Your task to perform on an android device: make emails show in primary in the gmail app Image 0: 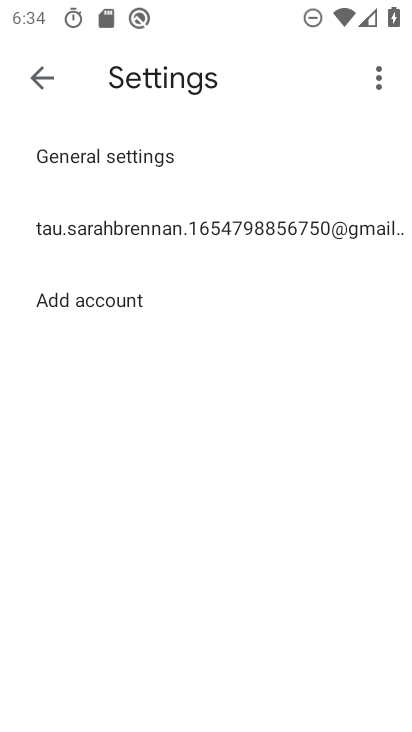
Step 0: press back button
Your task to perform on an android device: make emails show in primary in the gmail app Image 1: 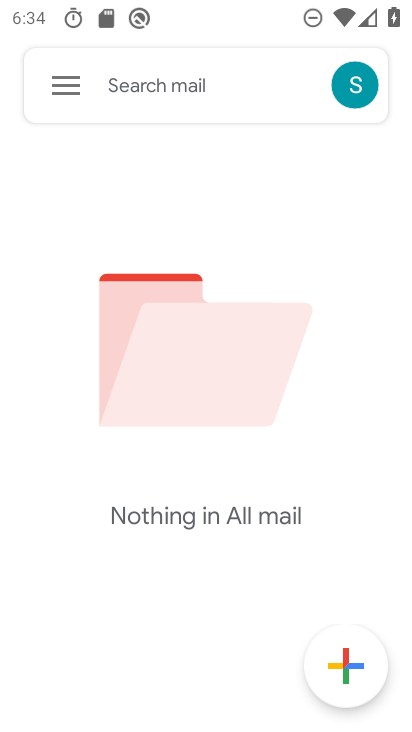
Step 1: press back button
Your task to perform on an android device: make emails show in primary in the gmail app Image 2: 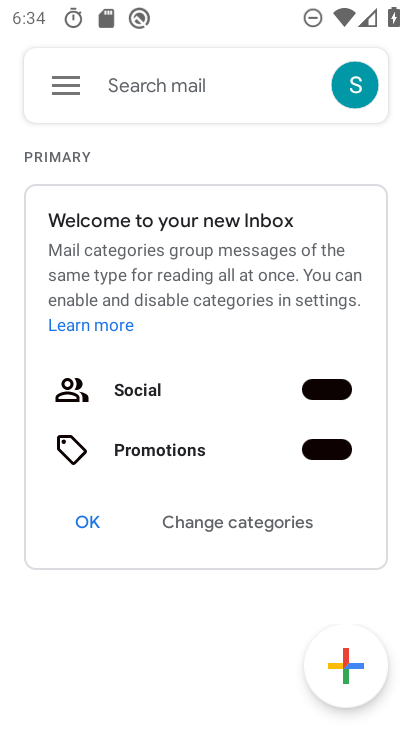
Step 2: press back button
Your task to perform on an android device: make emails show in primary in the gmail app Image 3: 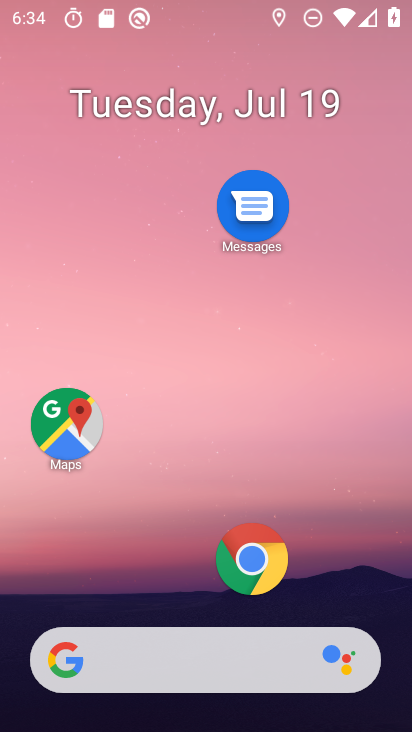
Step 3: click (203, 32)
Your task to perform on an android device: make emails show in primary in the gmail app Image 4: 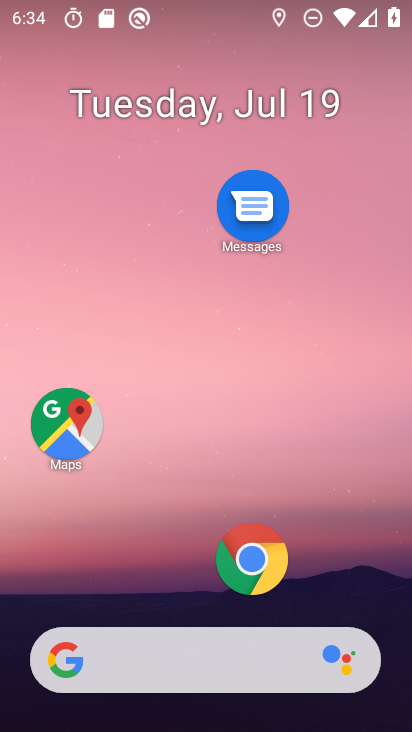
Step 4: drag from (144, 535) to (212, 2)
Your task to perform on an android device: make emails show in primary in the gmail app Image 5: 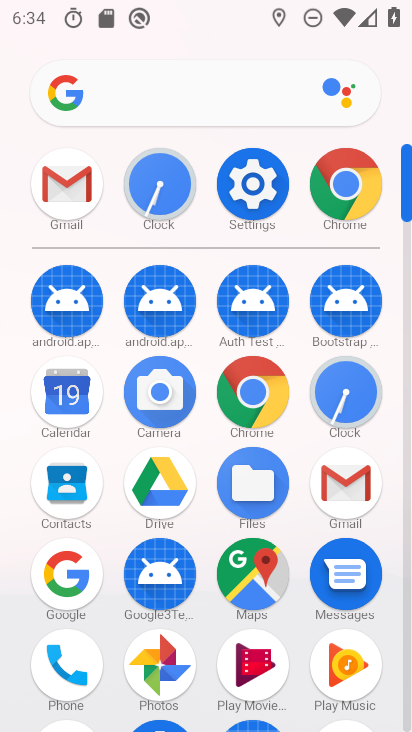
Step 5: click (63, 184)
Your task to perform on an android device: make emails show in primary in the gmail app Image 6: 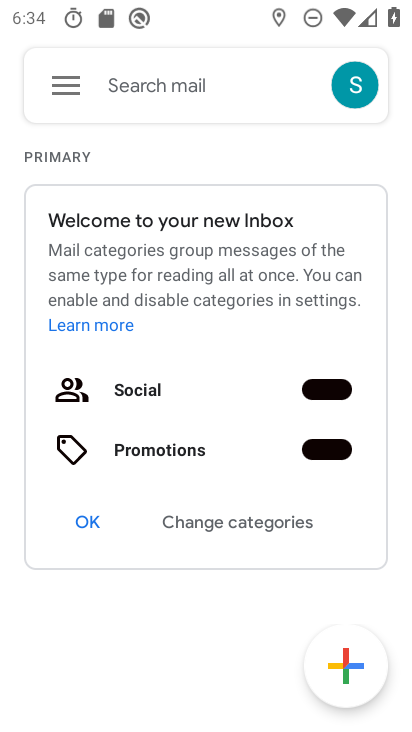
Step 6: click (59, 84)
Your task to perform on an android device: make emails show in primary in the gmail app Image 7: 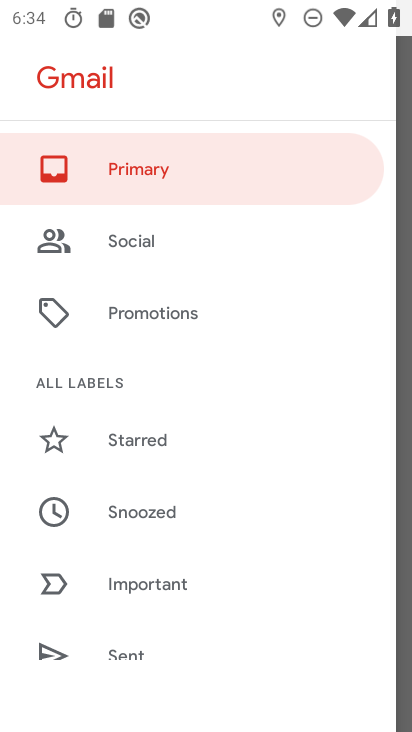
Step 7: click (162, 169)
Your task to perform on an android device: make emails show in primary in the gmail app Image 8: 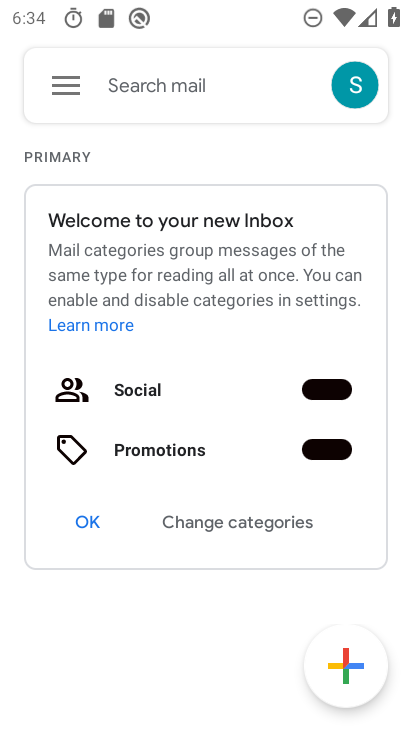
Step 8: click (51, 83)
Your task to perform on an android device: make emails show in primary in the gmail app Image 9: 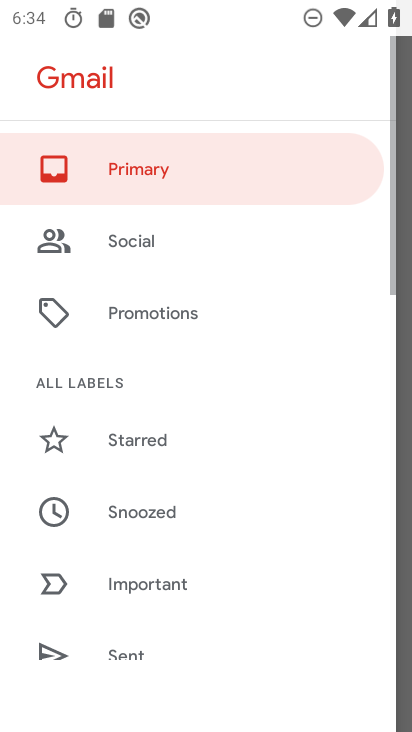
Step 9: click (198, 176)
Your task to perform on an android device: make emails show in primary in the gmail app Image 10: 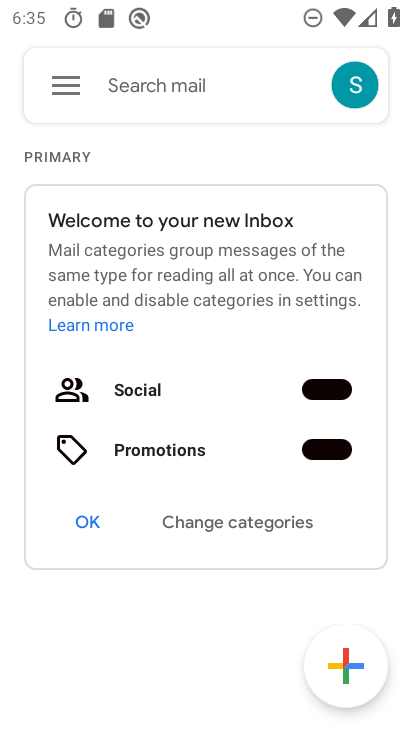
Step 10: click (72, 74)
Your task to perform on an android device: make emails show in primary in the gmail app Image 11: 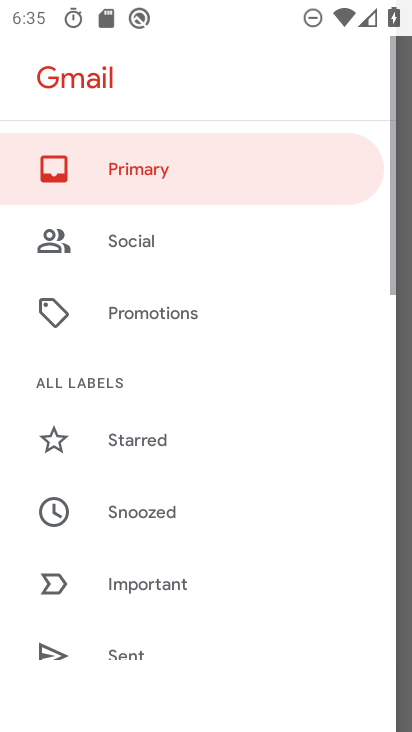
Step 11: drag from (186, 600) to (278, 1)
Your task to perform on an android device: make emails show in primary in the gmail app Image 12: 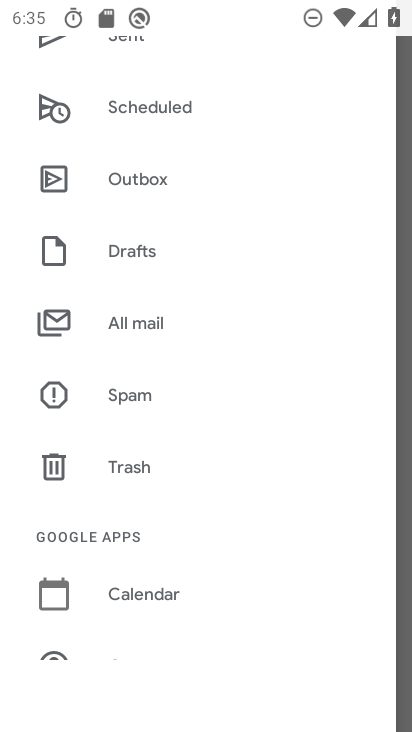
Step 12: drag from (155, 584) to (259, 34)
Your task to perform on an android device: make emails show in primary in the gmail app Image 13: 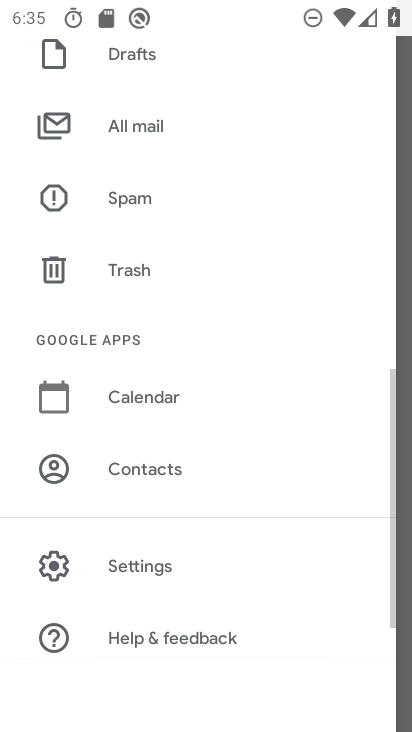
Step 13: click (164, 534)
Your task to perform on an android device: make emails show in primary in the gmail app Image 14: 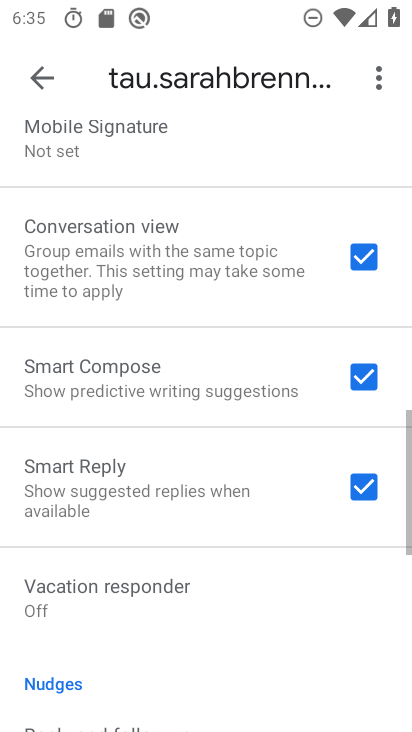
Step 14: drag from (191, 205) to (202, 707)
Your task to perform on an android device: make emails show in primary in the gmail app Image 15: 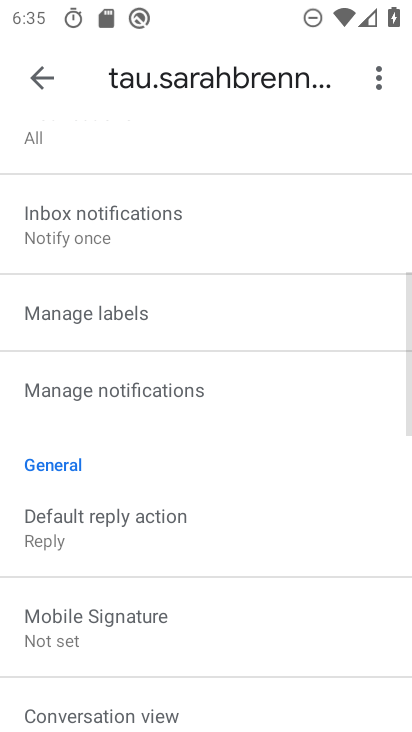
Step 15: drag from (175, 134) to (166, 729)
Your task to perform on an android device: make emails show in primary in the gmail app Image 16: 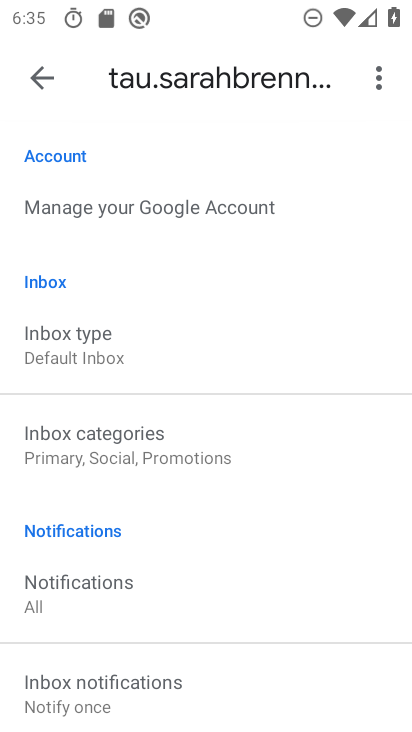
Step 16: click (105, 454)
Your task to perform on an android device: make emails show in primary in the gmail app Image 17: 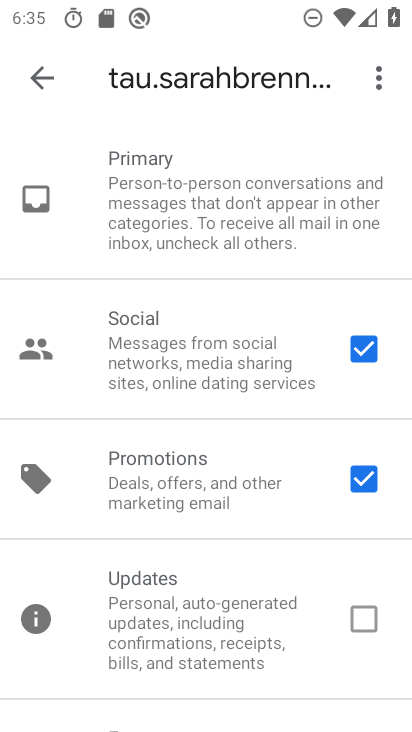
Step 17: click (370, 626)
Your task to perform on an android device: make emails show in primary in the gmail app Image 18: 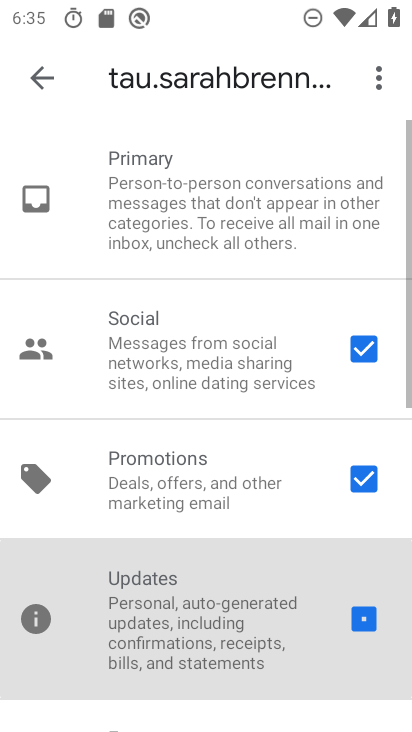
Step 18: drag from (233, 591) to (306, 55)
Your task to perform on an android device: make emails show in primary in the gmail app Image 19: 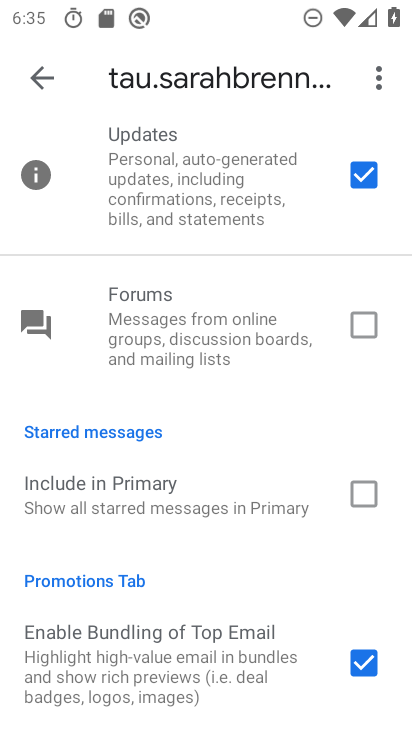
Step 19: click (351, 464)
Your task to perform on an android device: make emails show in primary in the gmail app Image 20: 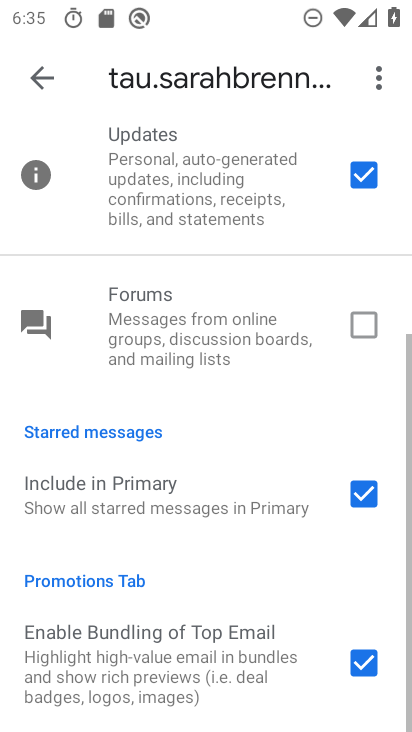
Step 20: task complete